Your task to perform on an android device: What's on my calendar today? Image 0: 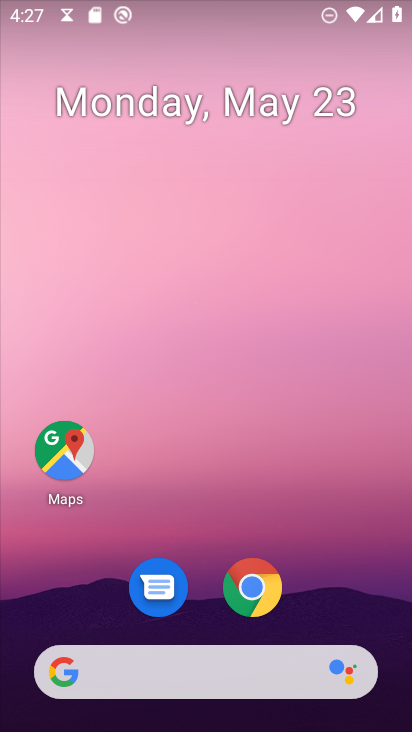
Step 0: drag from (207, 618) to (235, 9)
Your task to perform on an android device: What's on my calendar today? Image 1: 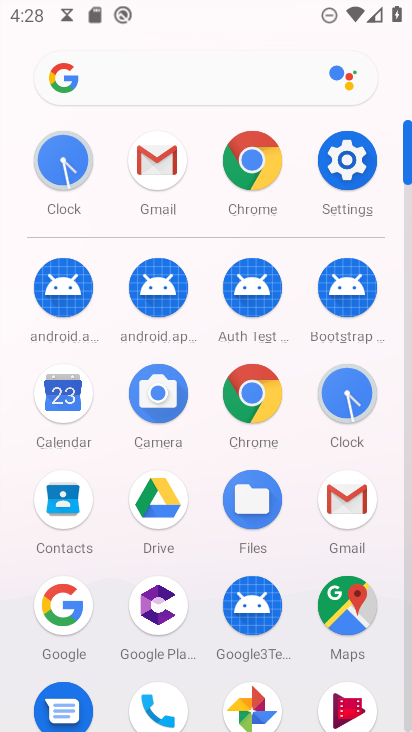
Step 1: drag from (203, 551) to (252, 95)
Your task to perform on an android device: What's on my calendar today? Image 2: 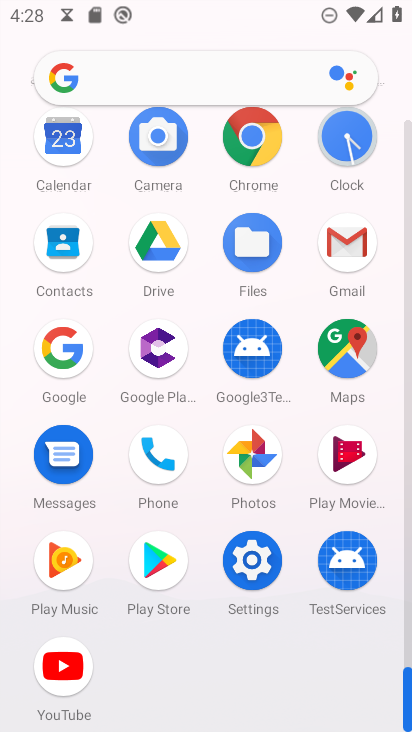
Step 2: click (70, 163)
Your task to perform on an android device: What's on my calendar today? Image 3: 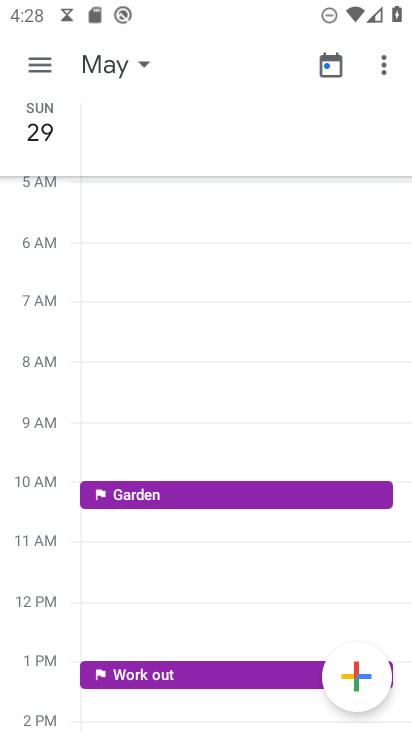
Step 3: click (36, 65)
Your task to perform on an android device: What's on my calendar today? Image 4: 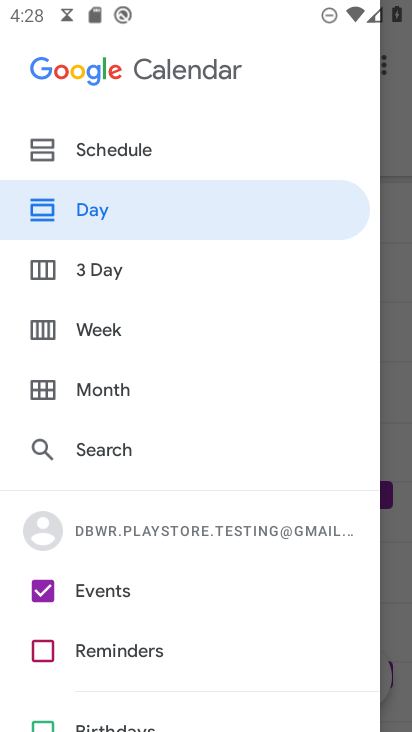
Step 4: drag from (101, 626) to (115, 428)
Your task to perform on an android device: What's on my calendar today? Image 5: 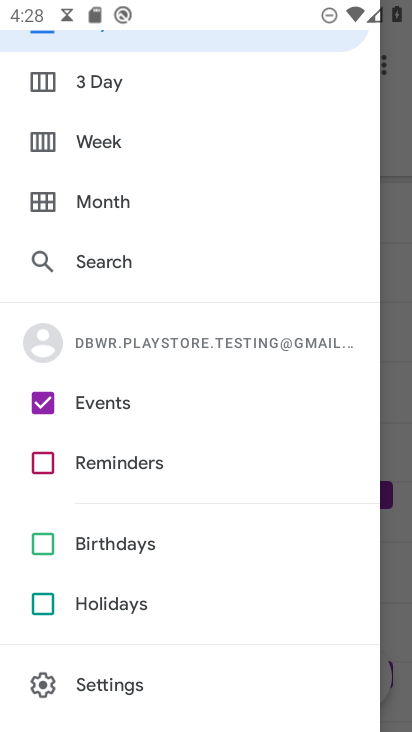
Step 5: click (76, 462)
Your task to perform on an android device: What's on my calendar today? Image 6: 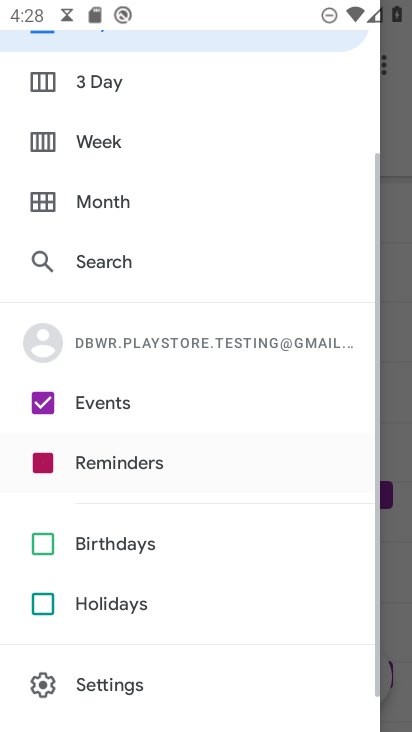
Step 6: click (78, 540)
Your task to perform on an android device: What's on my calendar today? Image 7: 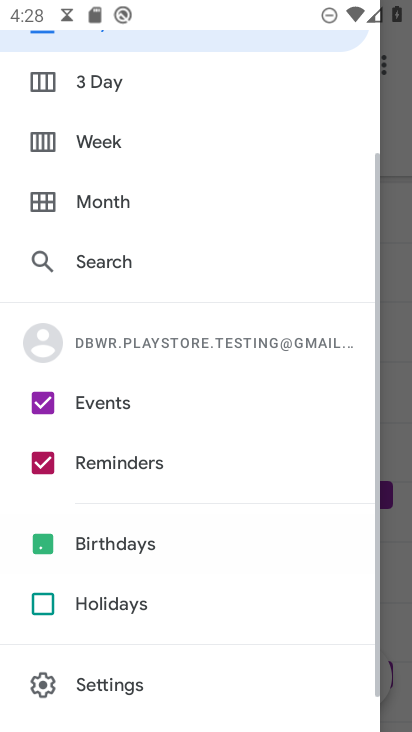
Step 7: click (70, 607)
Your task to perform on an android device: What's on my calendar today? Image 8: 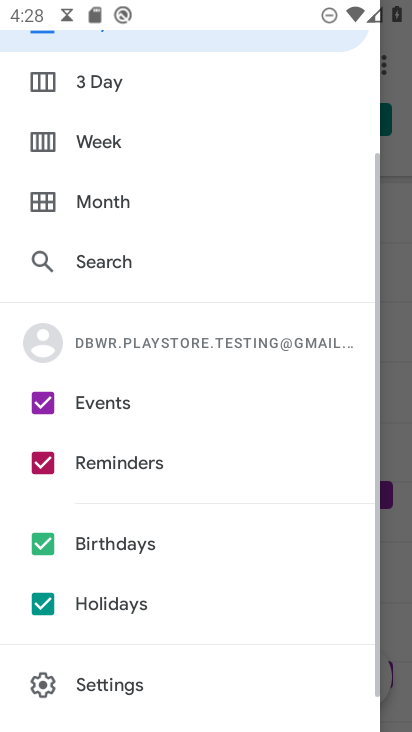
Step 8: drag from (260, 188) to (252, 338)
Your task to perform on an android device: What's on my calendar today? Image 9: 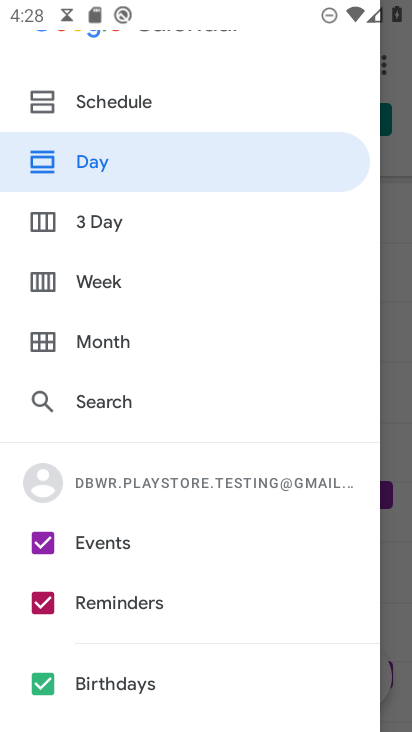
Step 9: click (192, 175)
Your task to perform on an android device: What's on my calendar today? Image 10: 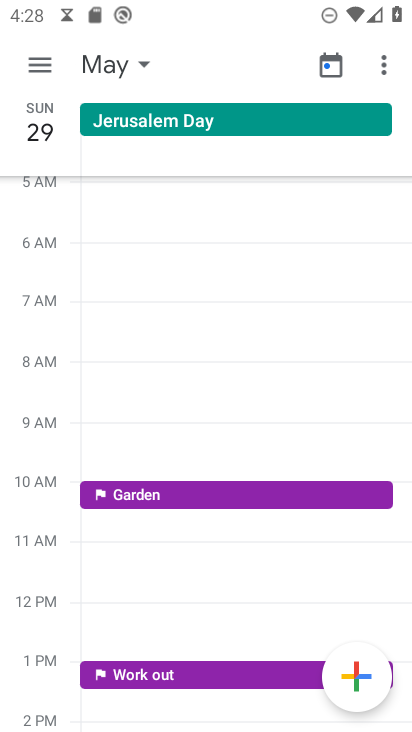
Step 10: task complete